Your task to perform on an android device: turn on the 12-hour format for clock Image 0: 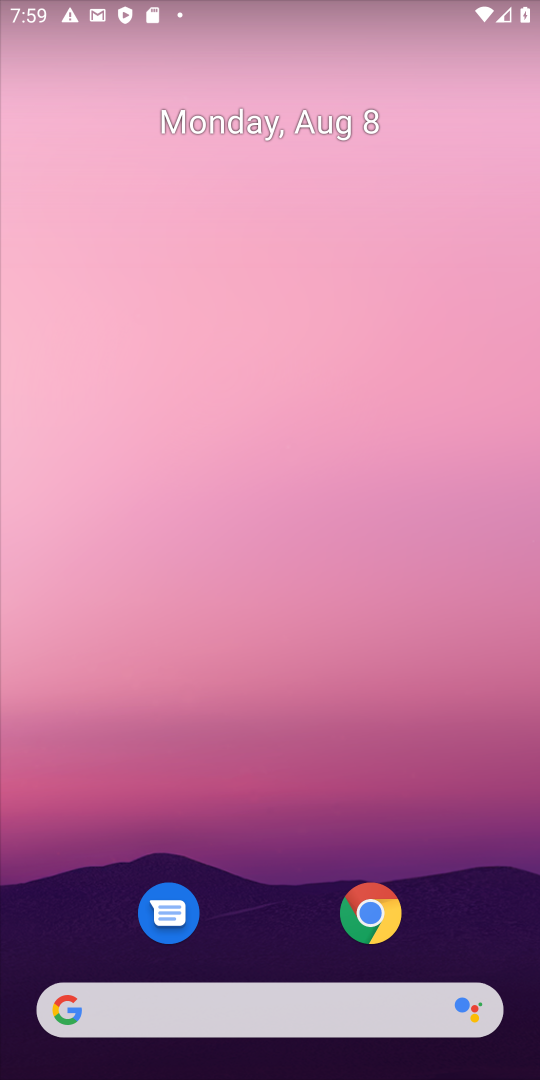
Step 0: drag from (258, 982) to (322, 363)
Your task to perform on an android device: turn on the 12-hour format for clock Image 1: 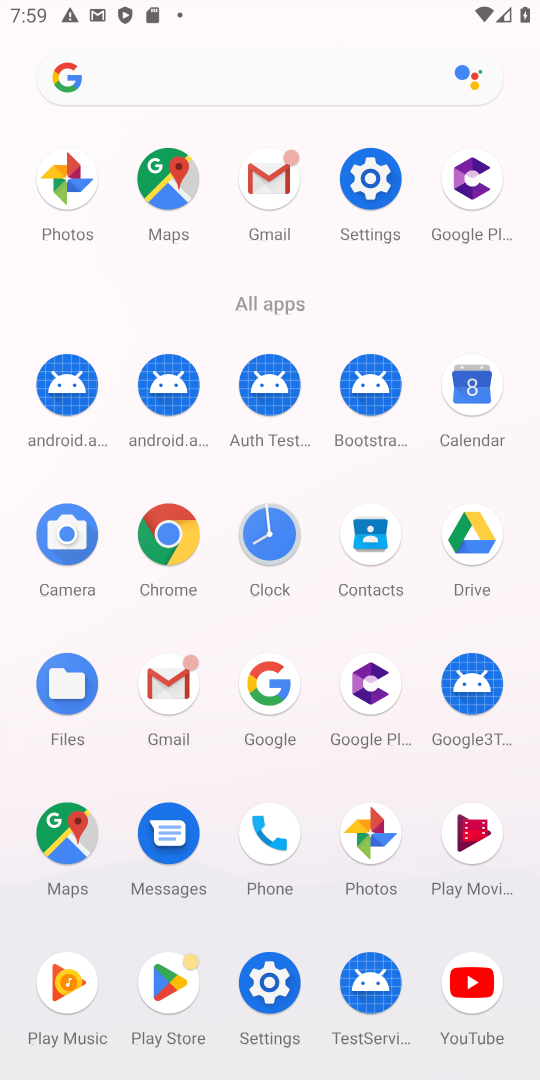
Step 1: click (260, 580)
Your task to perform on an android device: turn on the 12-hour format for clock Image 2: 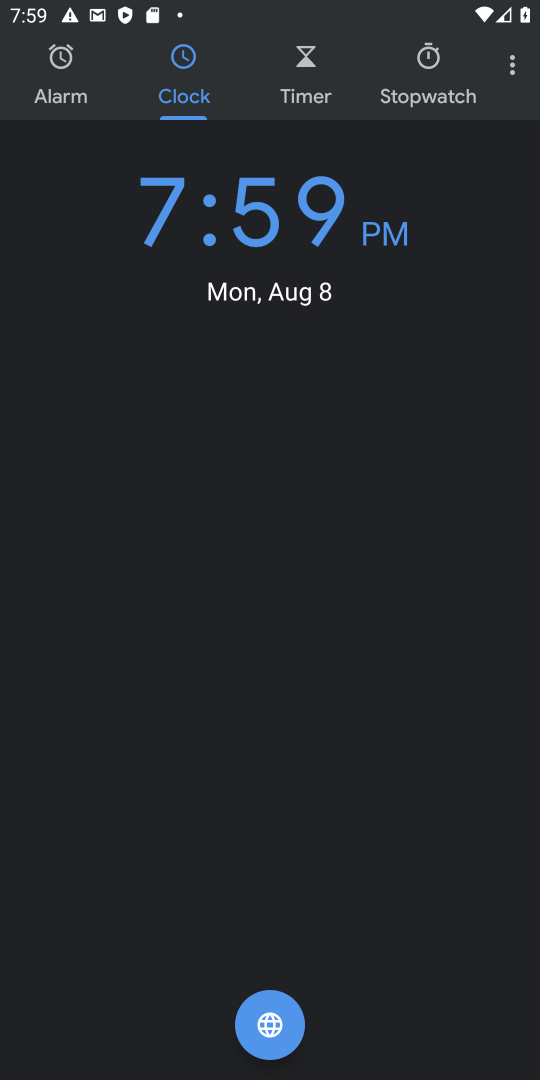
Step 2: click (505, 80)
Your task to perform on an android device: turn on the 12-hour format for clock Image 3: 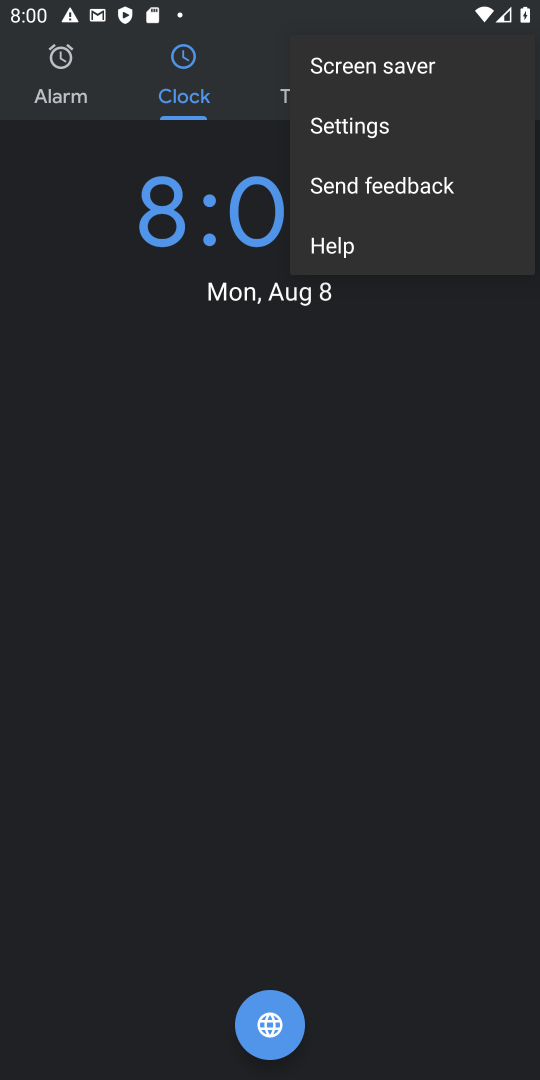
Step 3: click (345, 146)
Your task to perform on an android device: turn on the 12-hour format for clock Image 4: 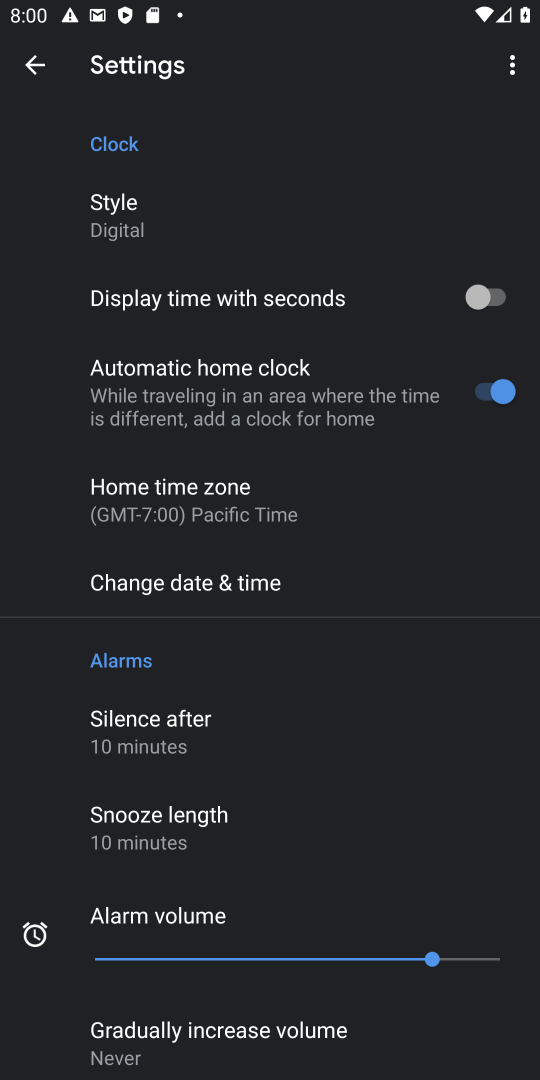
Step 4: click (231, 588)
Your task to perform on an android device: turn on the 12-hour format for clock Image 5: 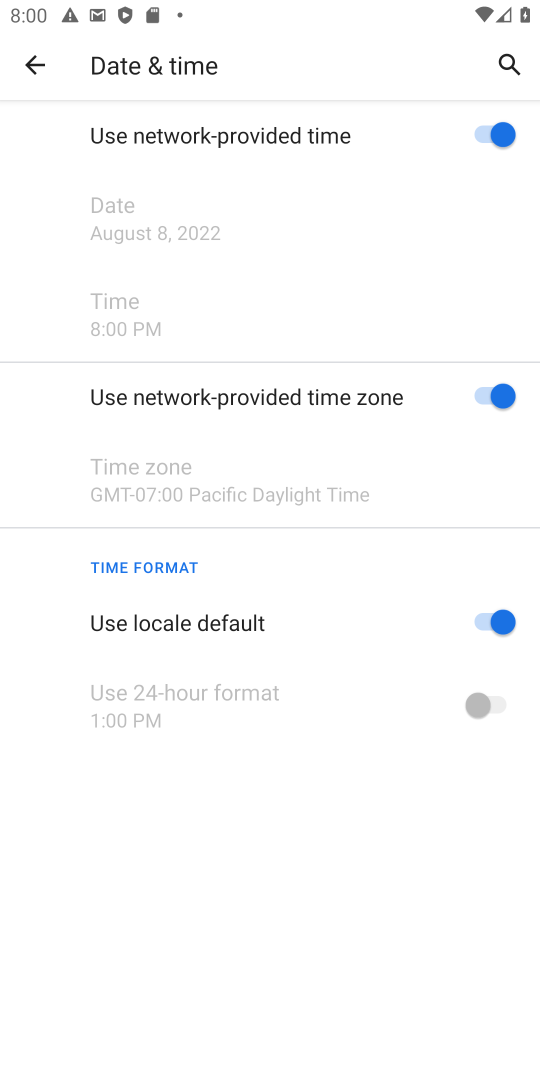
Step 5: click (451, 628)
Your task to perform on an android device: turn on the 12-hour format for clock Image 6: 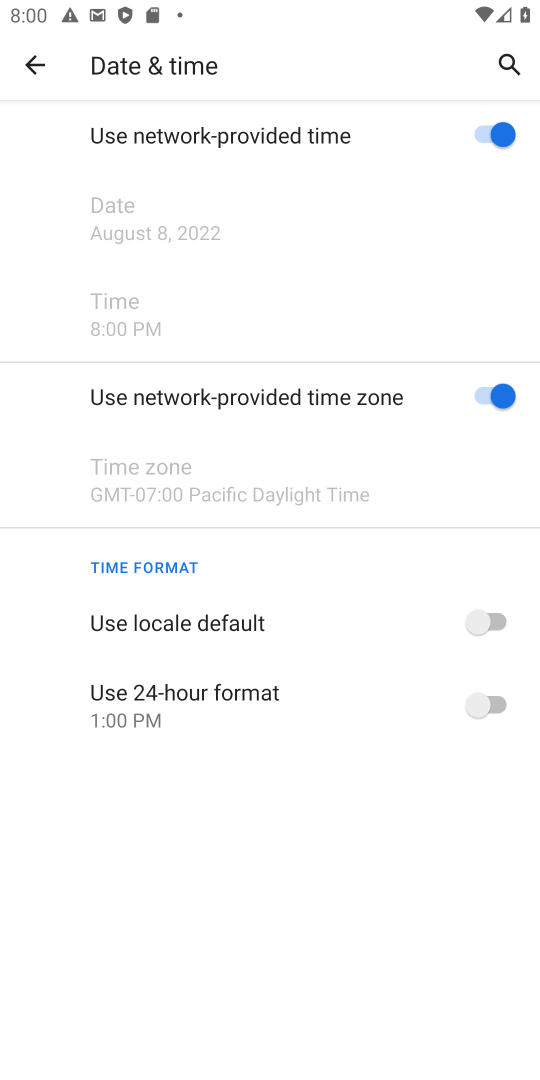
Step 6: click (177, 713)
Your task to perform on an android device: turn on the 12-hour format for clock Image 7: 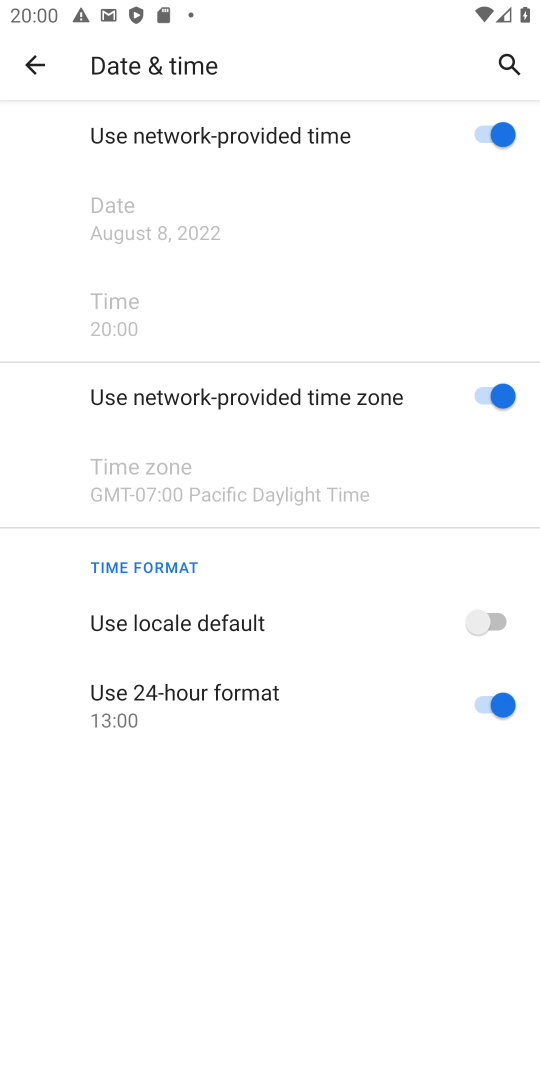
Step 7: task complete